Your task to perform on an android device: Check the news Image 0: 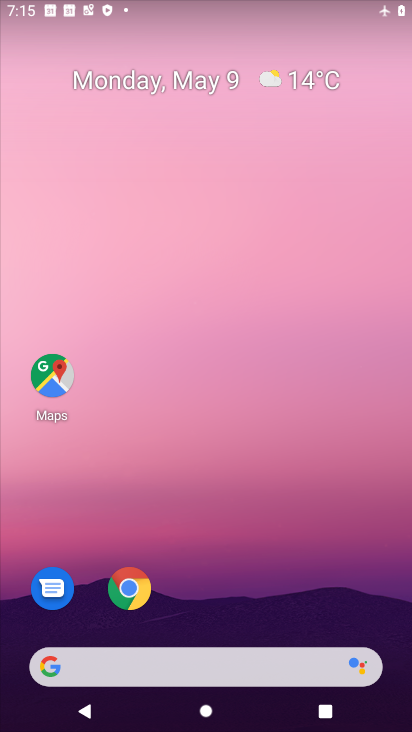
Step 0: click (129, 596)
Your task to perform on an android device: Check the news Image 1: 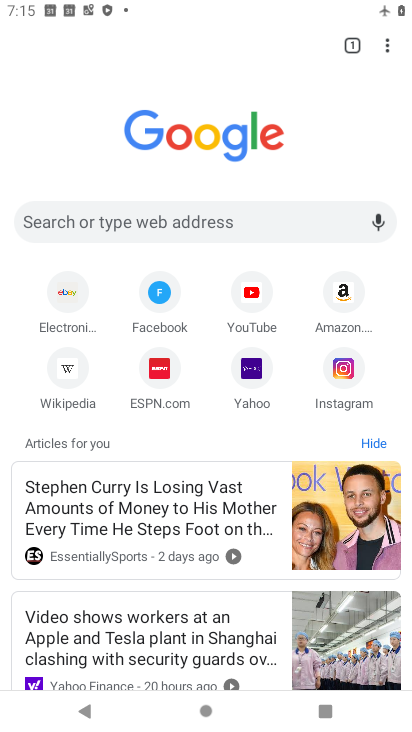
Step 1: click (113, 536)
Your task to perform on an android device: Check the news Image 2: 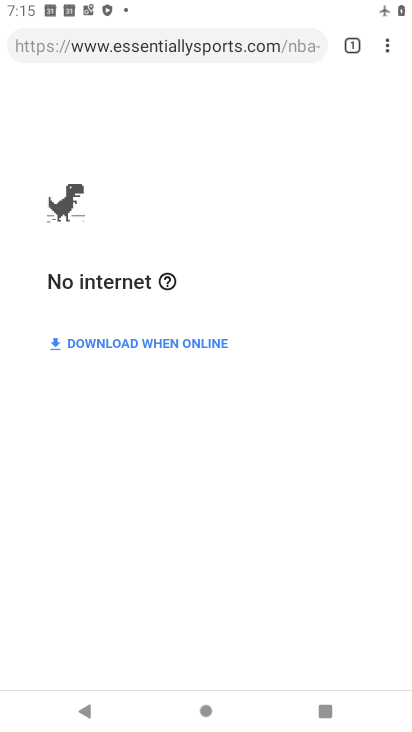
Step 2: task complete